Your task to perform on an android device: change the clock display to analog Image 0: 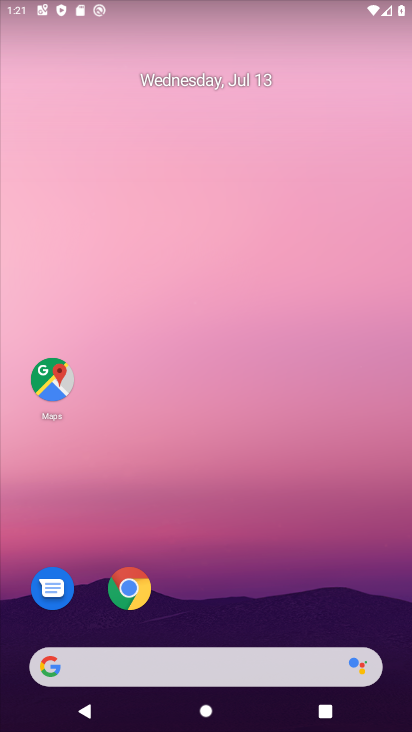
Step 0: drag from (178, 637) to (236, 114)
Your task to perform on an android device: change the clock display to analog Image 1: 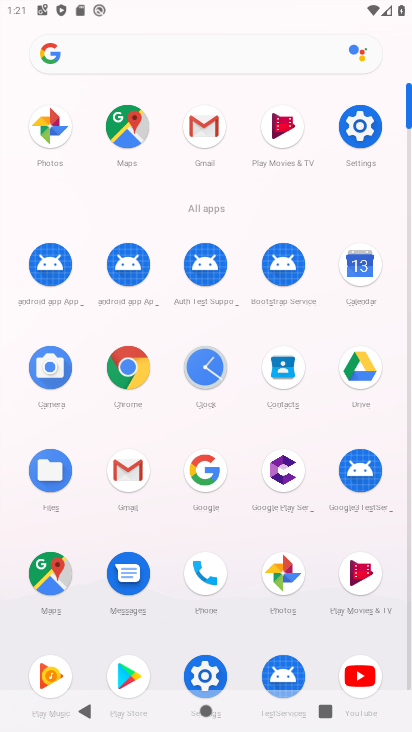
Step 1: click (215, 378)
Your task to perform on an android device: change the clock display to analog Image 2: 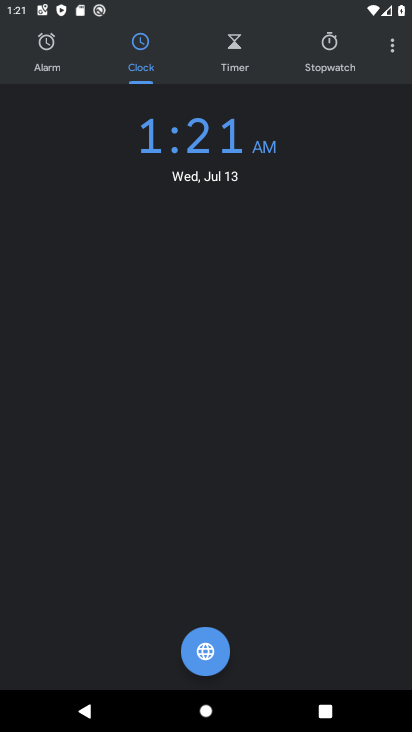
Step 2: click (391, 53)
Your task to perform on an android device: change the clock display to analog Image 3: 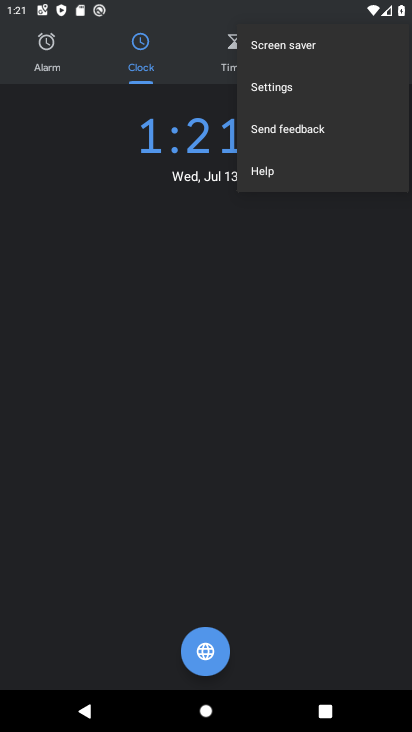
Step 3: click (289, 92)
Your task to perform on an android device: change the clock display to analog Image 4: 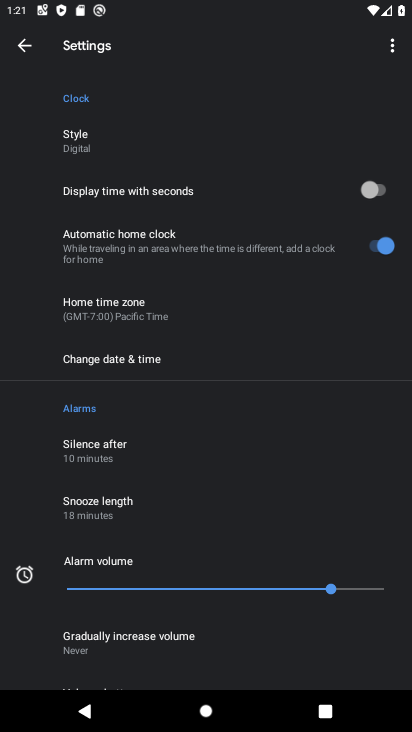
Step 4: click (86, 141)
Your task to perform on an android device: change the clock display to analog Image 5: 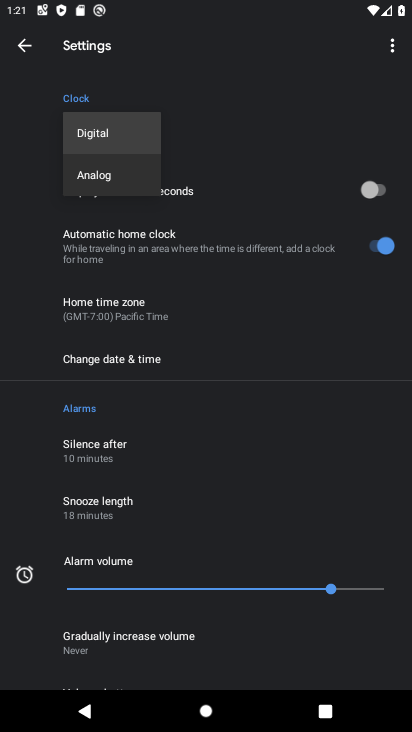
Step 5: click (101, 173)
Your task to perform on an android device: change the clock display to analog Image 6: 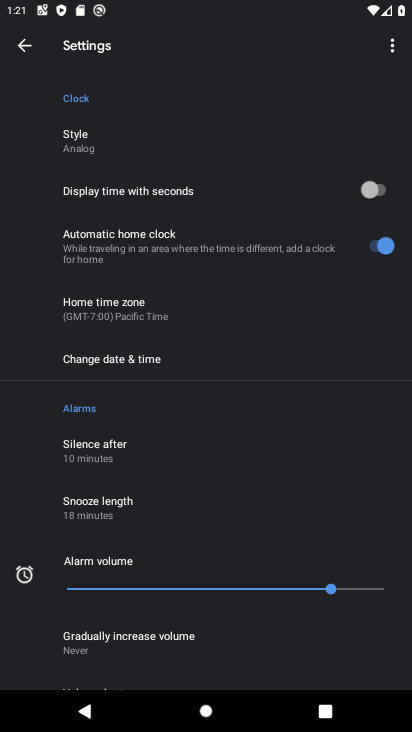
Step 6: task complete